Your task to perform on an android device: change your default location settings in chrome Image 0: 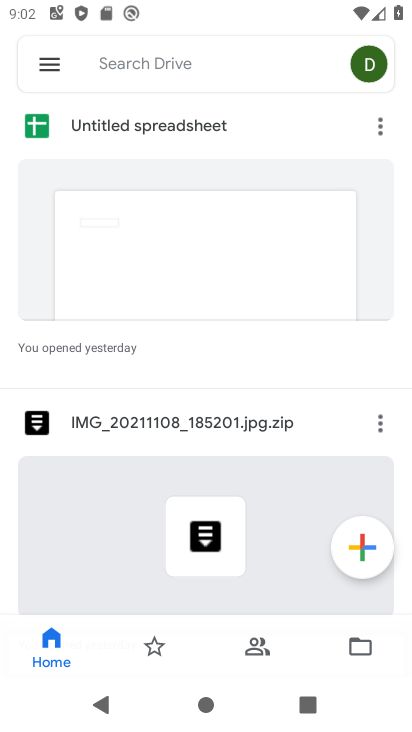
Step 0: press home button
Your task to perform on an android device: change your default location settings in chrome Image 1: 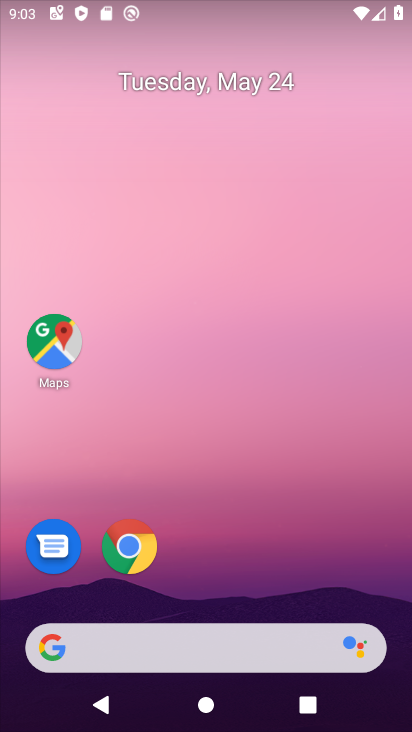
Step 1: click (138, 547)
Your task to perform on an android device: change your default location settings in chrome Image 2: 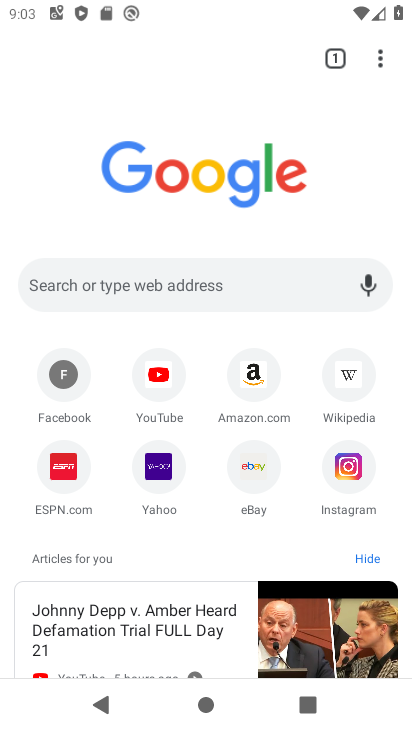
Step 2: click (384, 59)
Your task to perform on an android device: change your default location settings in chrome Image 3: 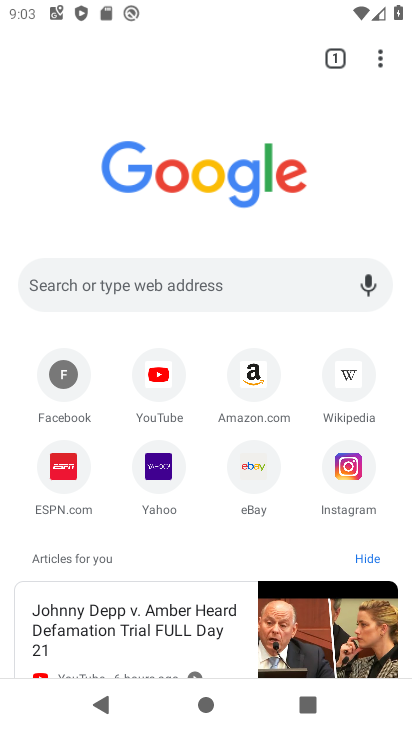
Step 3: click (376, 61)
Your task to perform on an android device: change your default location settings in chrome Image 4: 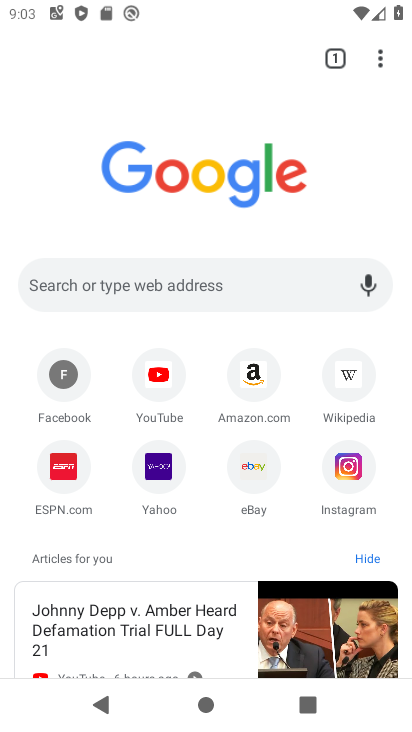
Step 4: click (375, 60)
Your task to perform on an android device: change your default location settings in chrome Image 5: 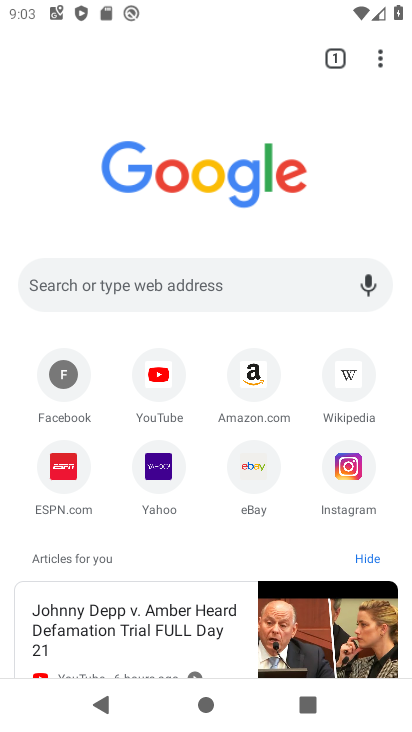
Step 5: click (374, 59)
Your task to perform on an android device: change your default location settings in chrome Image 6: 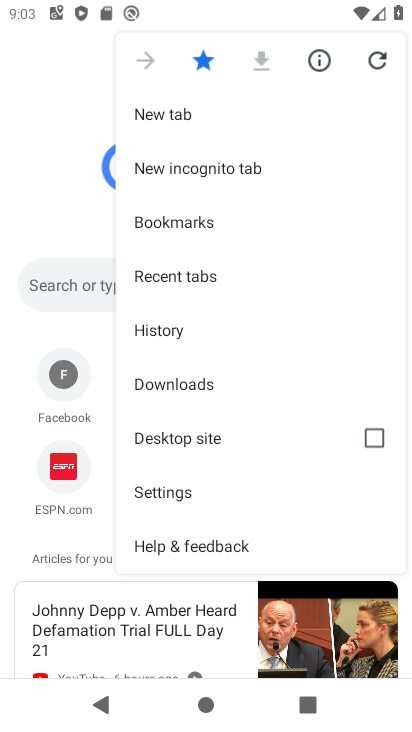
Step 6: click (178, 495)
Your task to perform on an android device: change your default location settings in chrome Image 7: 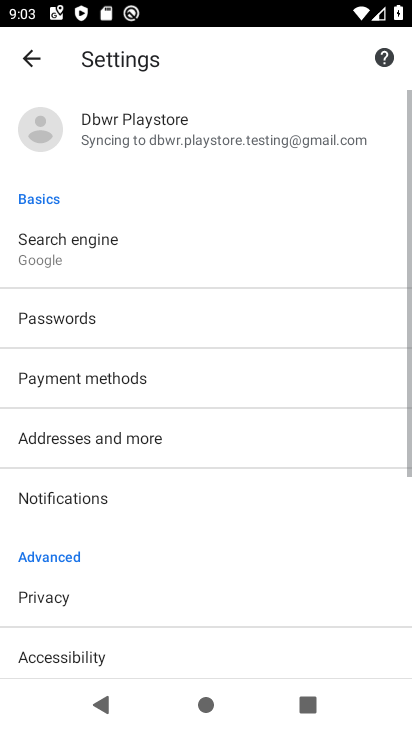
Step 7: drag from (155, 626) to (165, 158)
Your task to perform on an android device: change your default location settings in chrome Image 8: 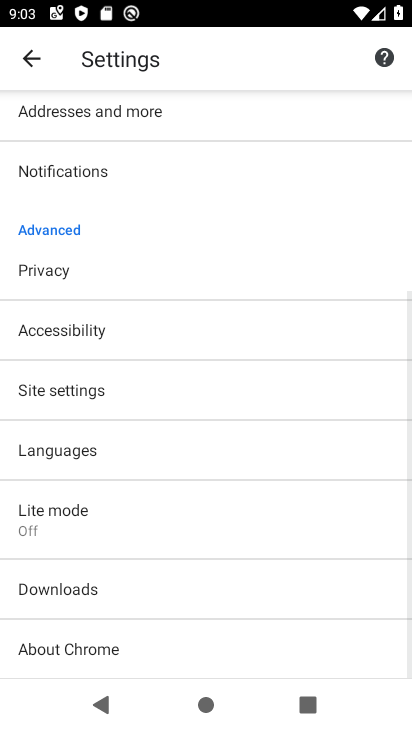
Step 8: drag from (108, 631) to (103, 313)
Your task to perform on an android device: change your default location settings in chrome Image 9: 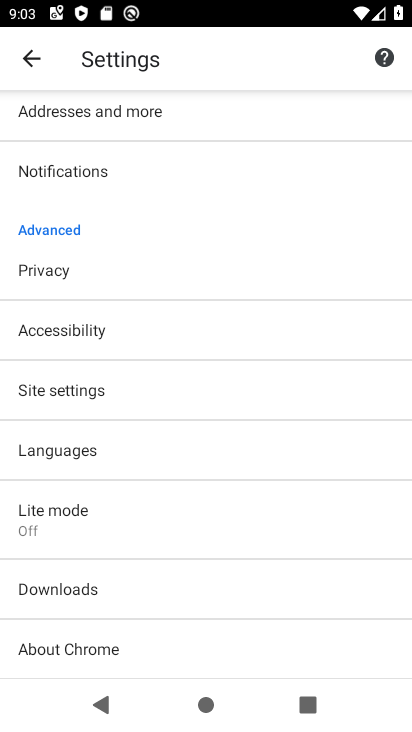
Step 9: drag from (75, 164) to (127, 573)
Your task to perform on an android device: change your default location settings in chrome Image 10: 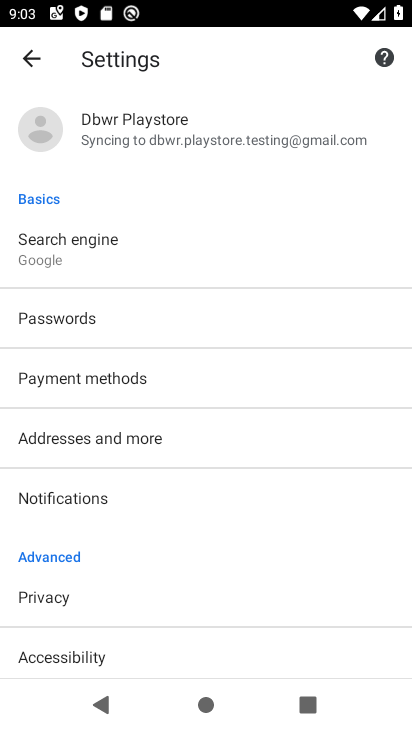
Step 10: drag from (85, 638) to (109, 170)
Your task to perform on an android device: change your default location settings in chrome Image 11: 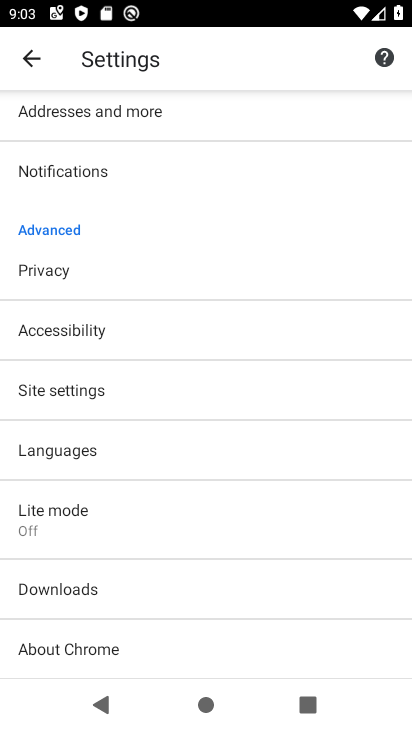
Step 11: click (56, 389)
Your task to perform on an android device: change your default location settings in chrome Image 12: 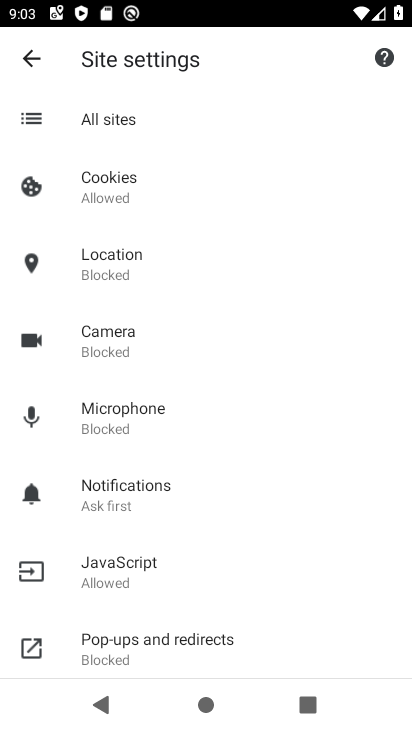
Step 12: click (107, 270)
Your task to perform on an android device: change your default location settings in chrome Image 13: 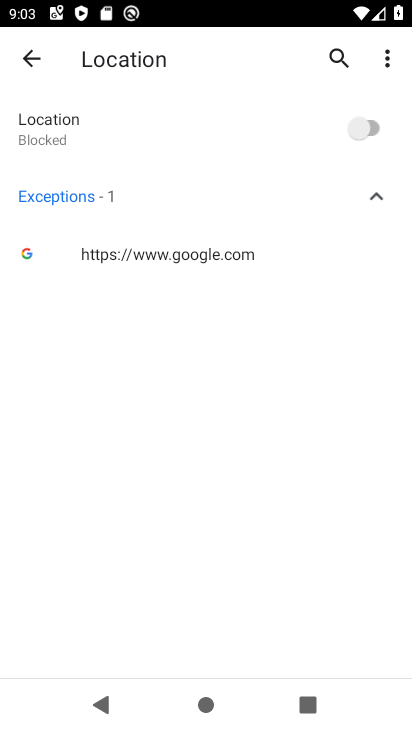
Step 13: click (373, 127)
Your task to perform on an android device: change your default location settings in chrome Image 14: 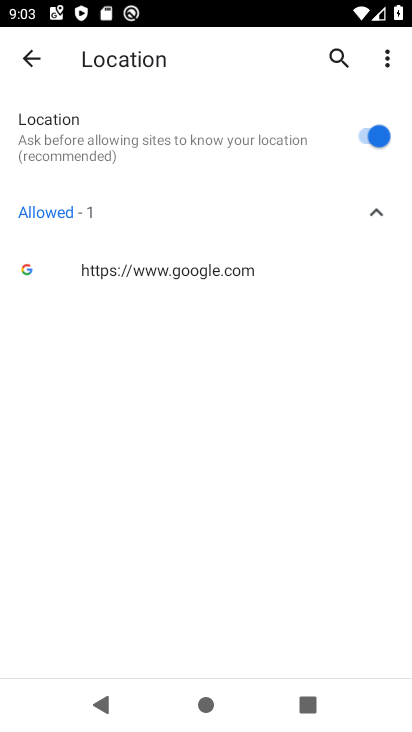
Step 14: task complete